Your task to perform on an android device: change notification settings in the gmail app Image 0: 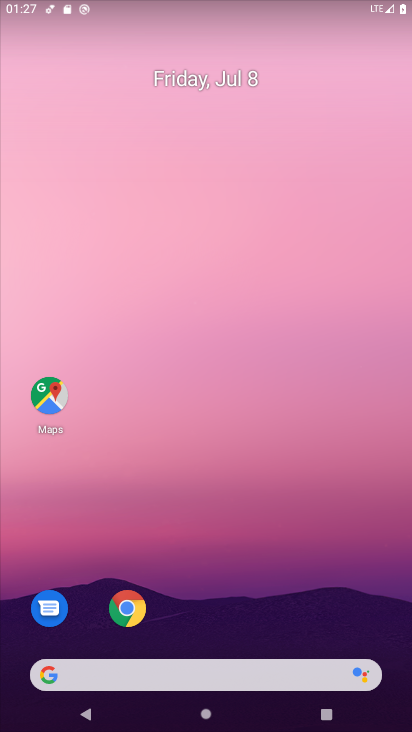
Step 0: drag from (285, 648) to (326, 277)
Your task to perform on an android device: change notification settings in the gmail app Image 1: 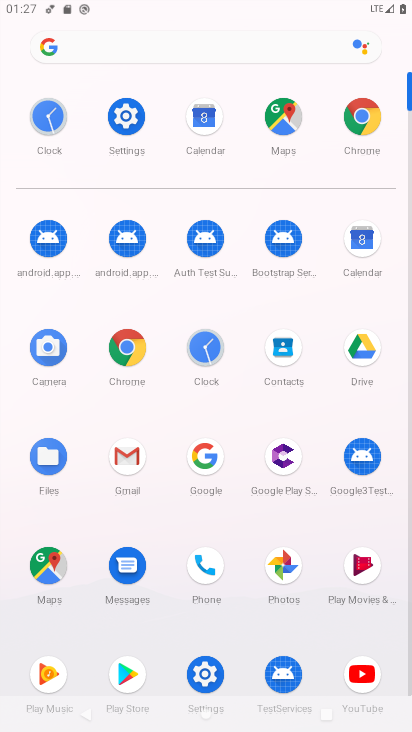
Step 1: click (138, 444)
Your task to perform on an android device: change notification settings in the gmail app Image 2: 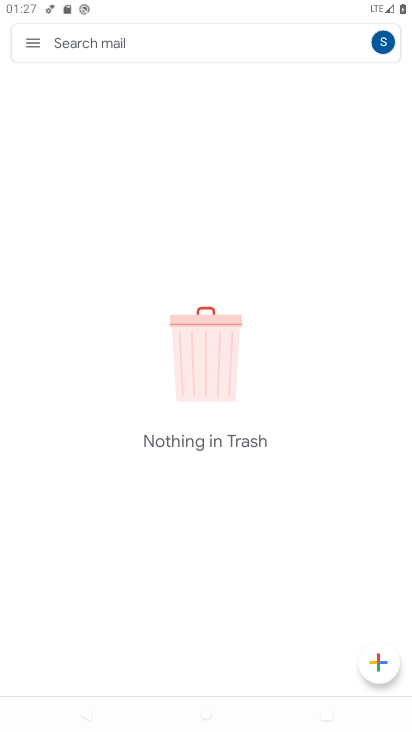
Step 2: click (28, 44)
Your task to perform on an android device: change notification settings in the gmail app Image 3: 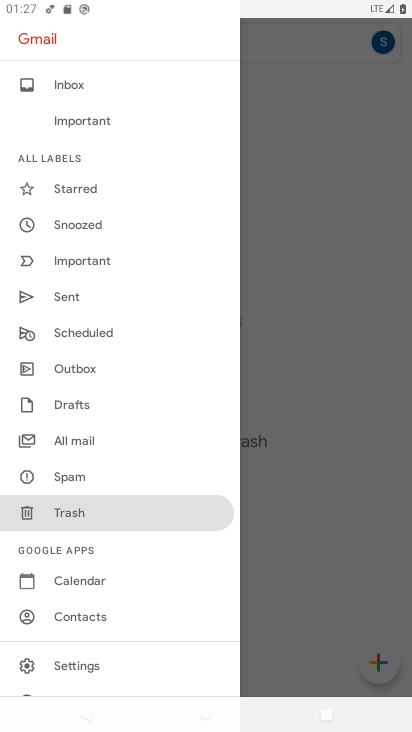
Step 3: click (91, 661)
Your task to perform on an android device: change notification settings in the gmail app Image 4: 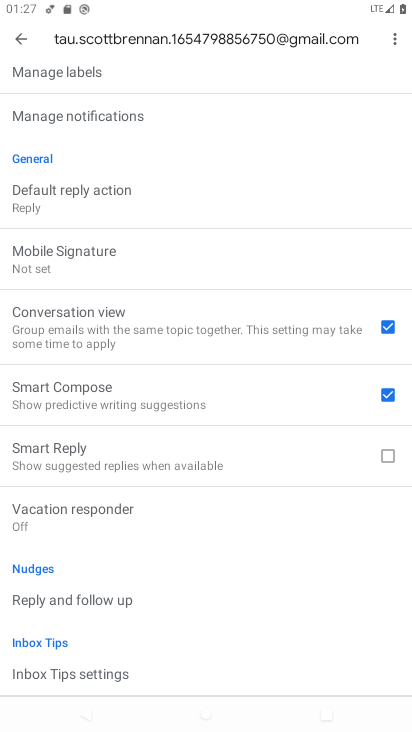
Step 4: drag from (104, 125) to (154, 486)
Your task to perform on an android device: change notification settings in the gmail app Image 5: 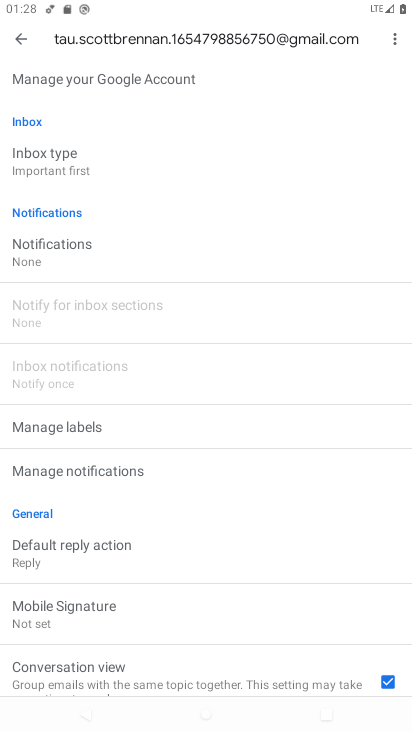
Step 5: click (101, 235)
Your task to perform on an android device: change notification settings in the gmail app Image 6: 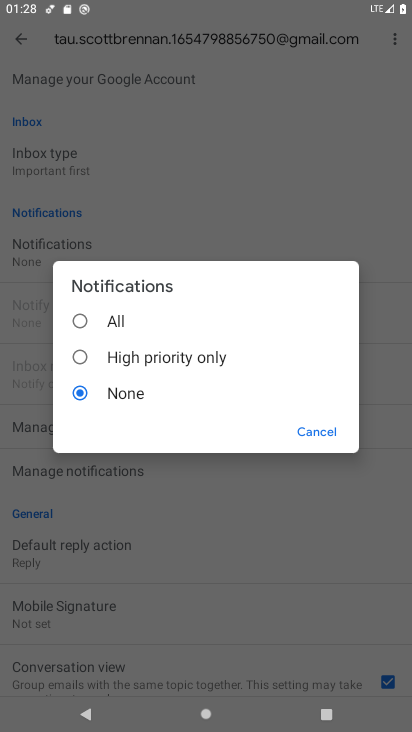
Step 6: click (134, 320)
Your task to perform on an android device: change notification settings in the gmail app Image 7: 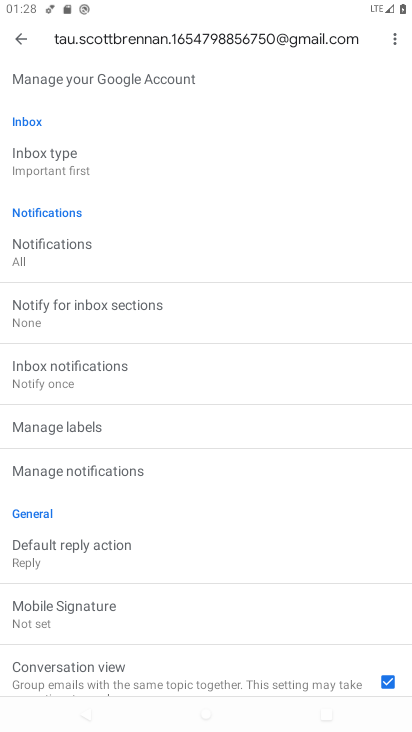
Step 7: task complete